Your task to perform on an android device: turn pop-ups on in chrome Image 0: 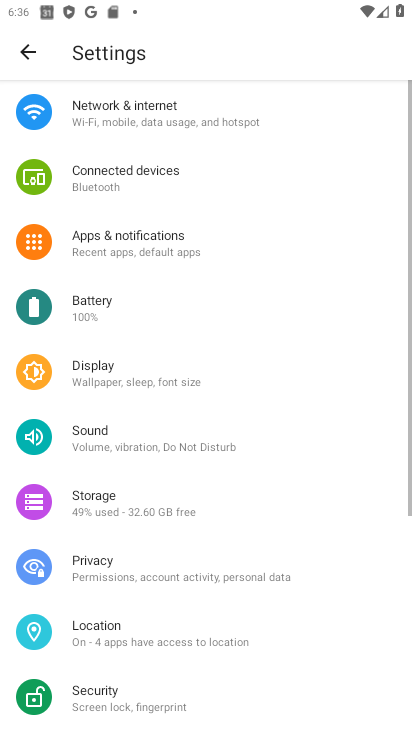
Step 0: press home button
Your task to perform on an android device: turn pop-ups on in chrome Image 1: 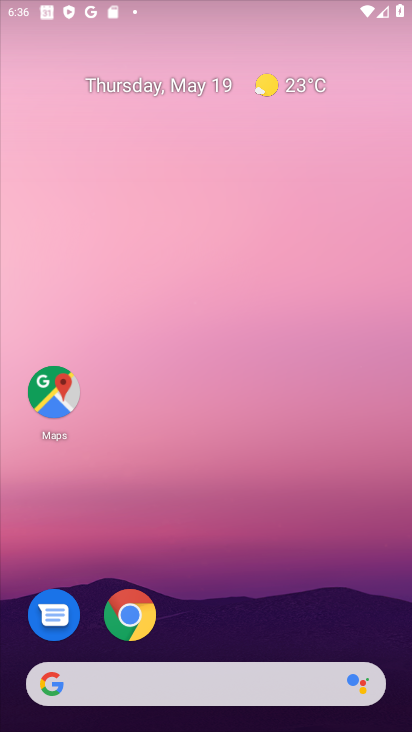
Step 1: drag from (309, 634) to (215, 71)
Your task to perform on an android device: turn pop-ups on in chrome Image 2: 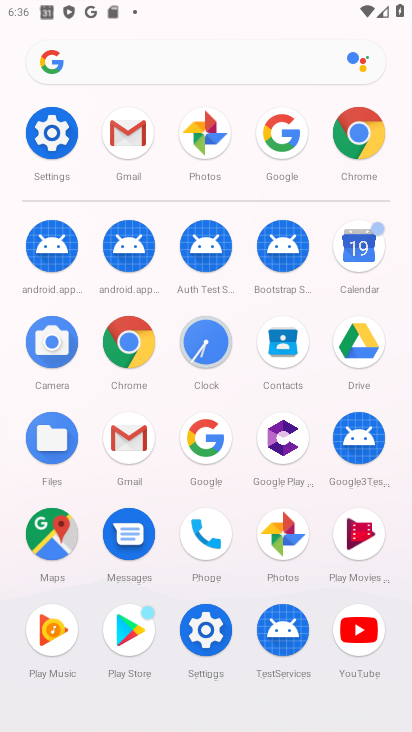
Step 2: click (349, 127)
Your task to perform on an android device: turn pop-ups on in chrome Image 3: 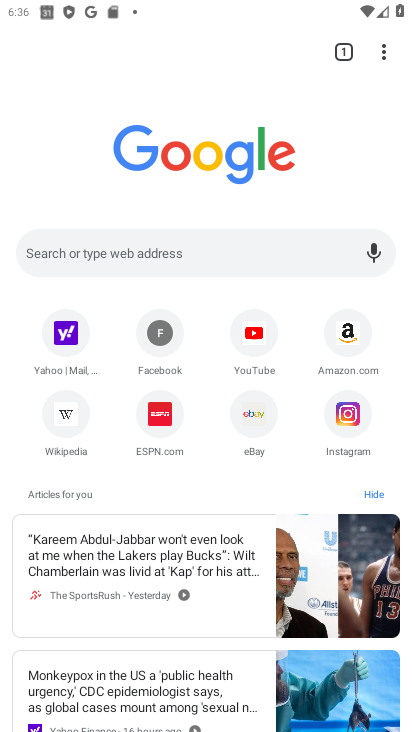
Step 3: click (386, 44)
Your task to perform on an android device: turn pop-ups on in chrome Image 4: 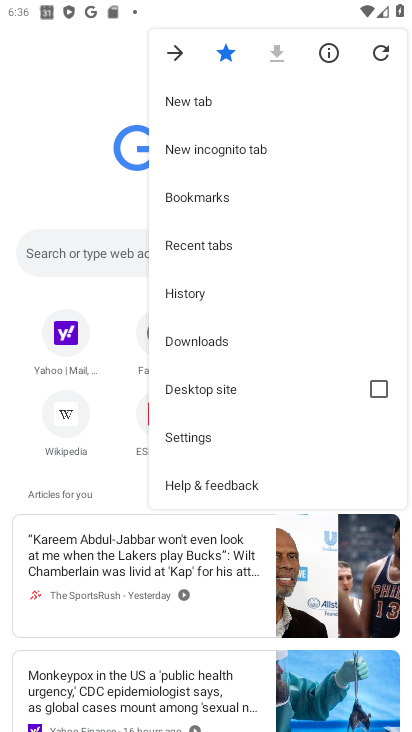
Step 4: click (198, 436)
Your task to perform on an android device: turn pop-ups on in chrome Image 5: 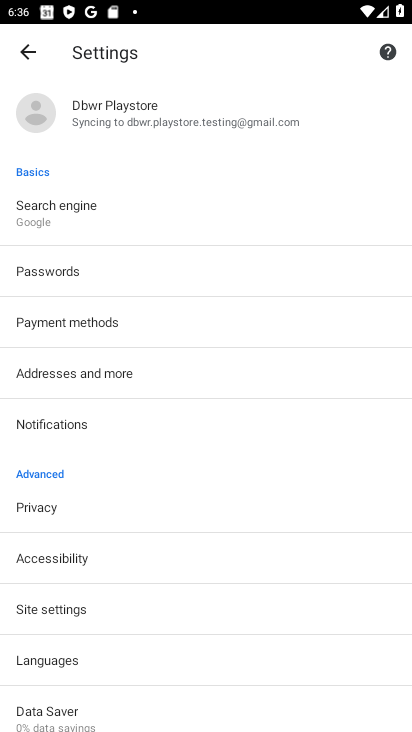
Step 5: click (95, 605)
Your task to perform on an android device: turn pop-ups on in chrome Image 6: 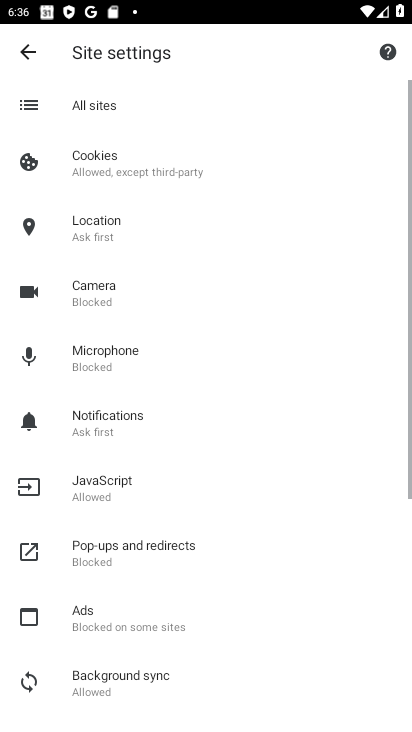
Step 6: click (125, 551)
Your task to perform on an android device: turn pop-ups on in chrome Image 7: 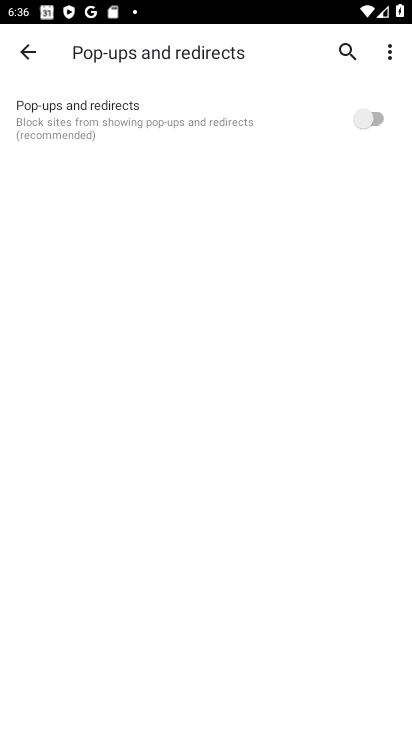
Step 7: click (336, 142)
Your task to perform on an android device: turn pop-ups on in chrome Image 8: 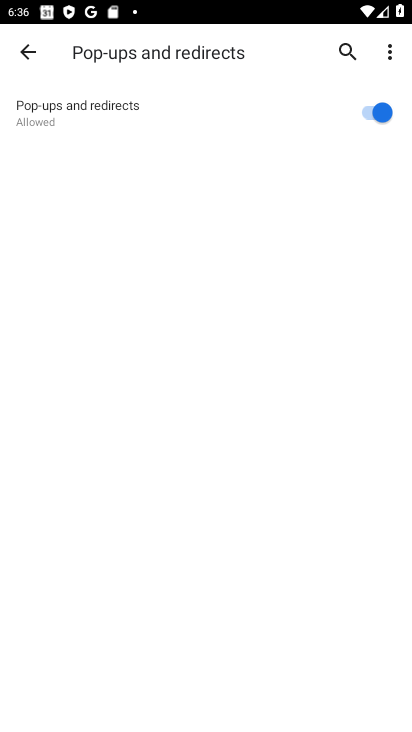
Step 8: task complete